Your task to perform on an android device: turn on priority inbox in the gmail app Image 0: 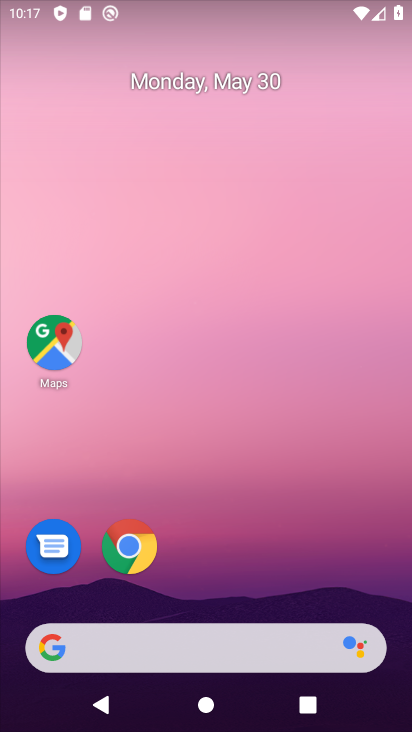
Step 0: press home button
Your task to perform on an android device: turn on priority inbox in the gmail app Image 1: 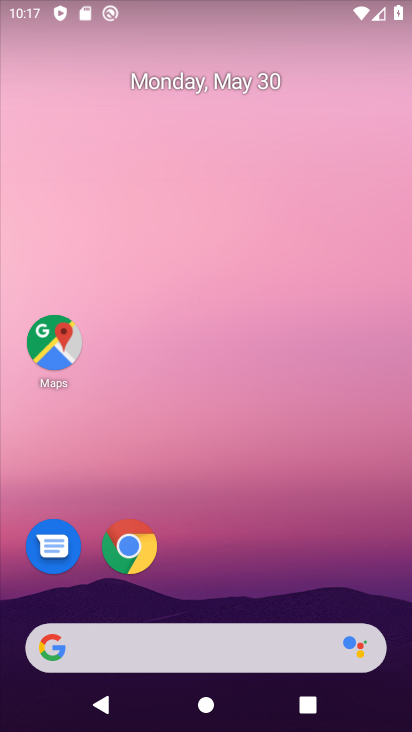
Step 1: drag from (234, 600) to (255, 17)
Your task to perform on an android device: turn on priority inbox in the gmail app Image 2: 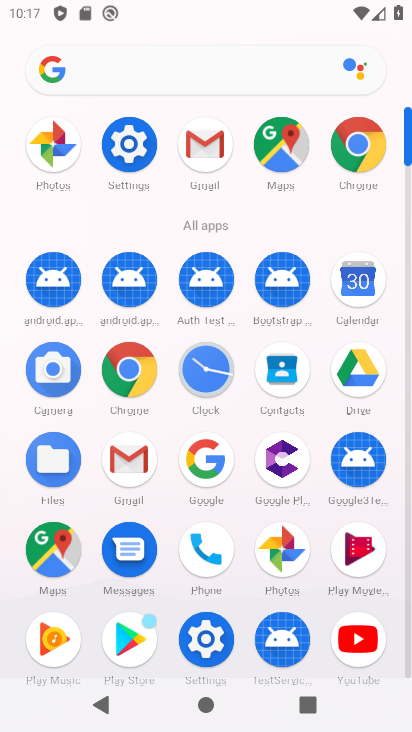
Step 2: click (200, 139)
Your task to perform on an android device: turn on priority inbox in the gmail app Image 3: 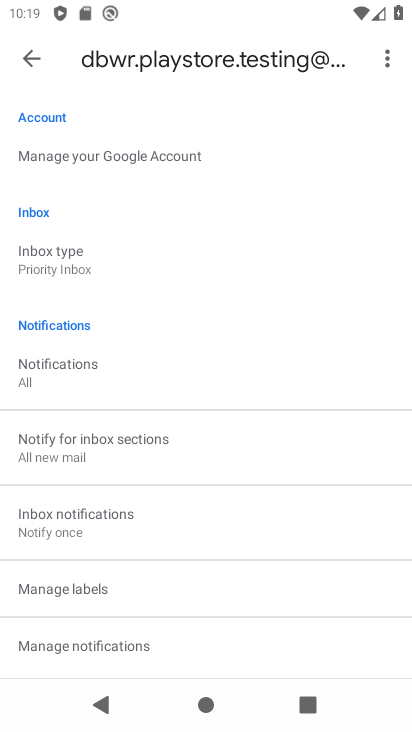
Step 3: click (105, 258)
Your task to perform on an android device: turn on priority inbox in the gmail app Image 4: 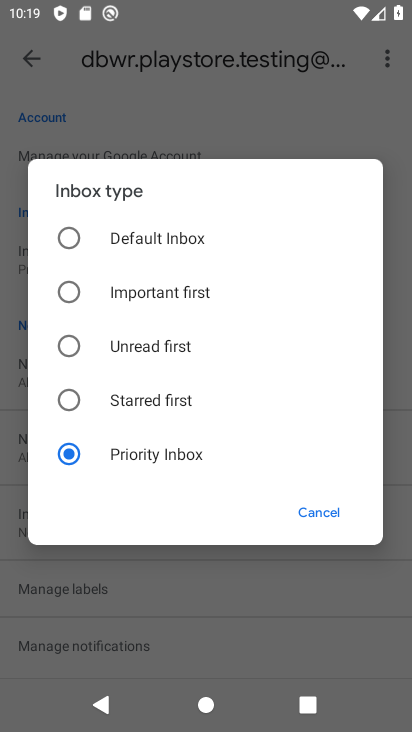
Step 4: click (133, 447)
Your task to perform on an android device: turn on priority inbox in the gmail app Image 5: 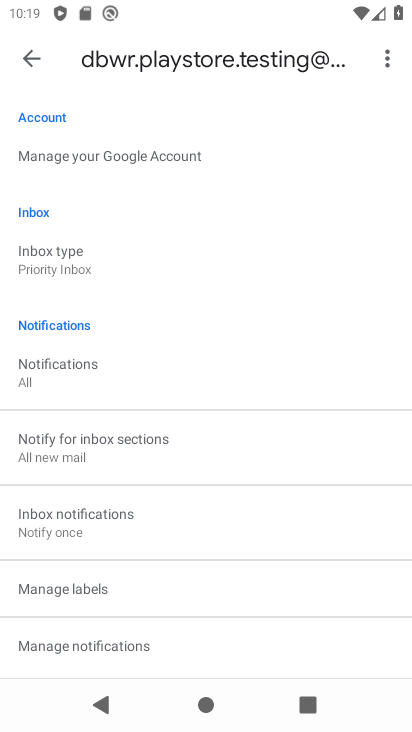
Step 5: task complete